Your task to perform on an android device: toggle priority inbox in the gmail app Image 0: 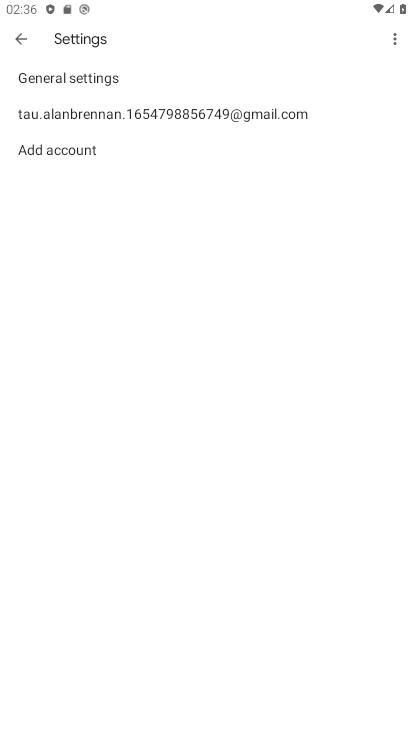
Step 0: press home button
Your task to perform on an android device: toggle priority inbox in the gmail app Image 1: 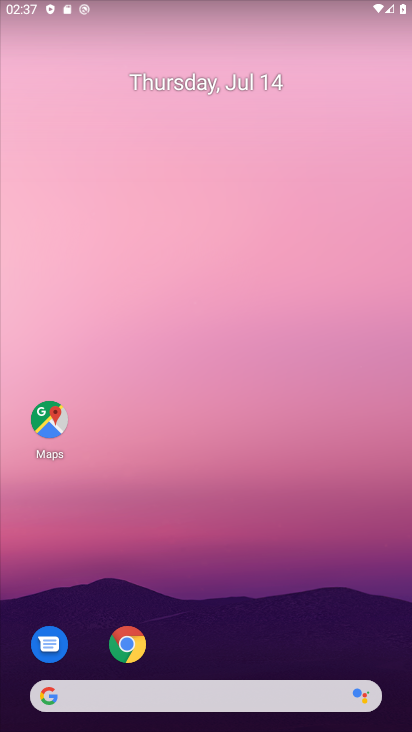
Step 1: drag from (315, 629) to (205, 20)
Your task to perform on an android device: toggle priority inbox in the gmail app Image 2: 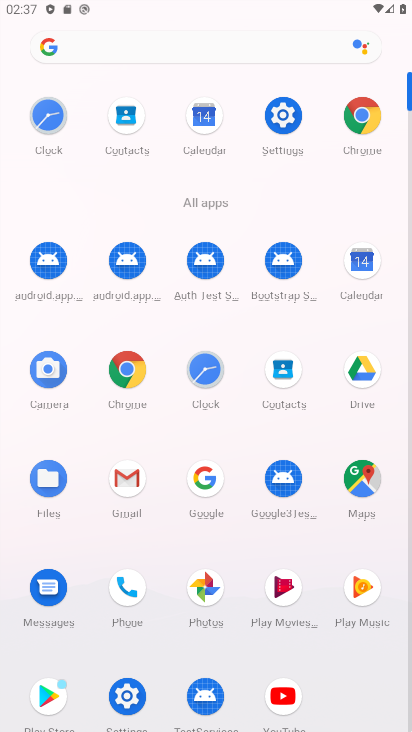
Step 2: click (144, 483)
Your task to perform on an android device: toggle priority inbox in the gmail app Image 3: 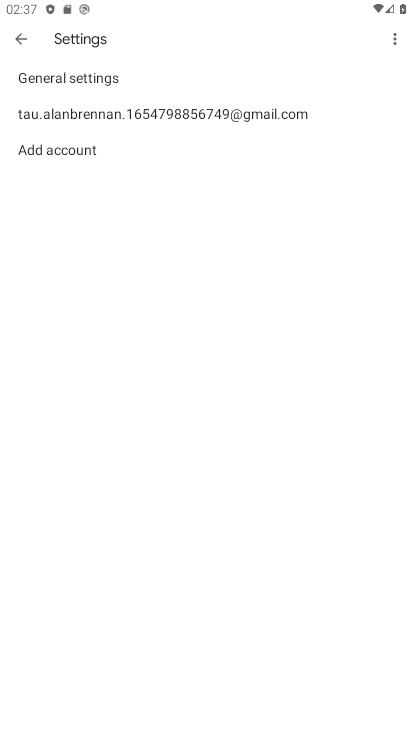
Step 3: click (247, 114)
Your task to perform on an android device: toggle priority inbox in the gmail app Image 4: 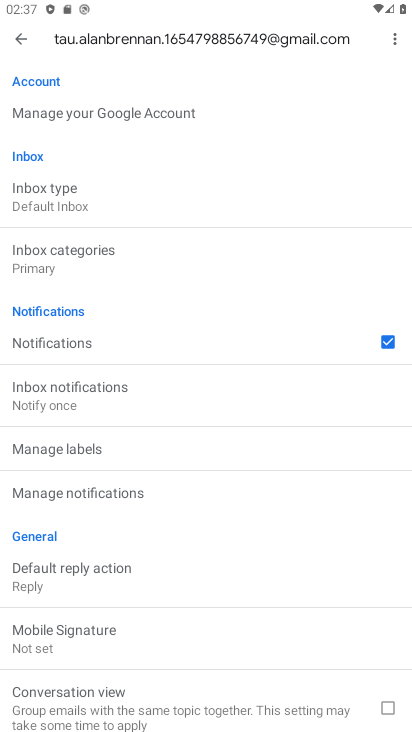
Step 4: click (48, 200)
Your task to perform on an android device: toggle priority inbox in the gmail app Image 5: 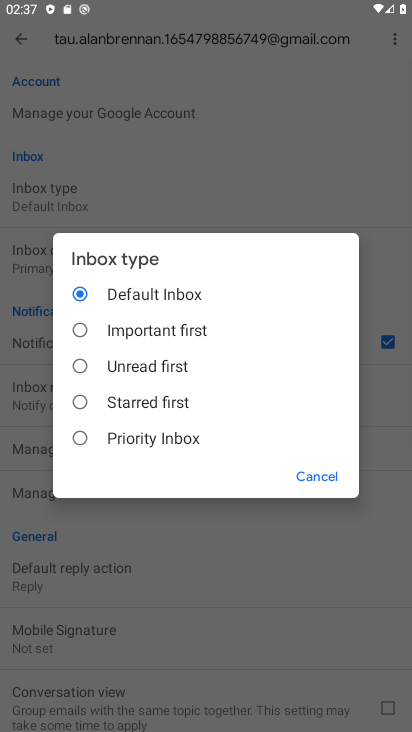
Step 5: click (96, 432)
Your task to perform on an android device: toggle priority inbox in the gmail app Image 6: 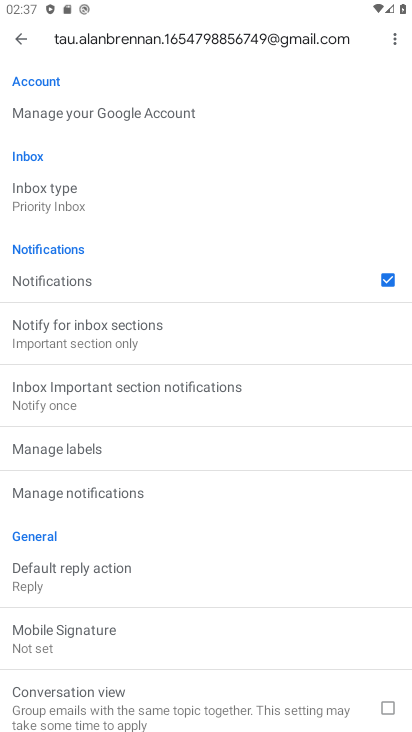
Step 6: task complete